Your task to perform on an android device: Show me productivity apps on the Play Store Image 0: 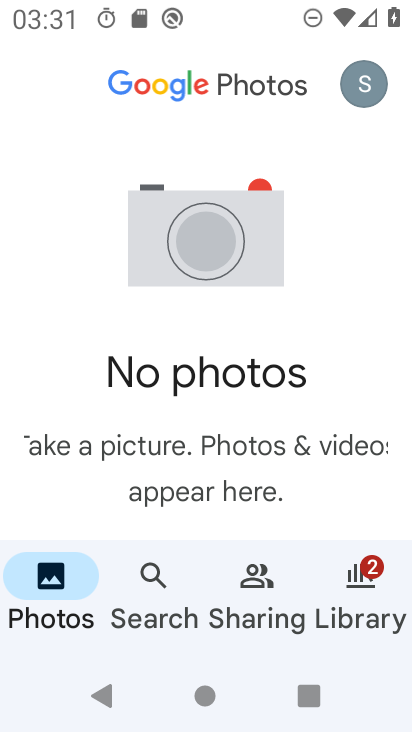
Step 0: press home button
Your task to perform on an android device: Show me productivity apps on the Play Store Image 1: 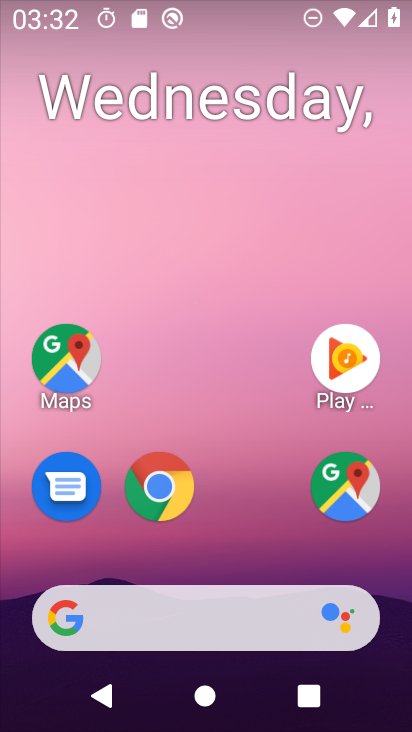
Step 1: drag from (260, 549) to (291, 175)
Your task to perform on an android device: Show me productivity apps on the Play Store Image 2: 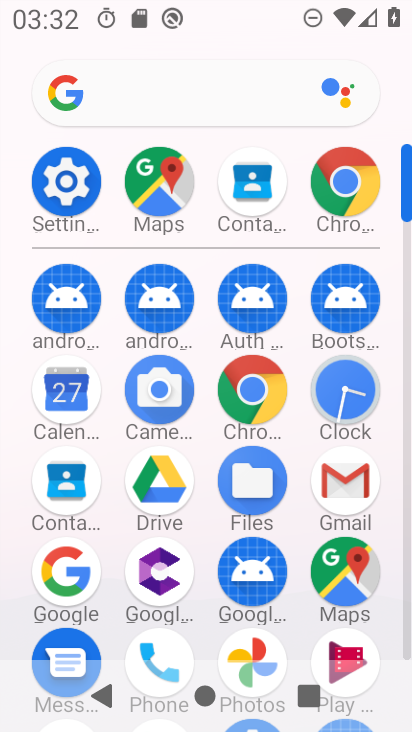
Step 2: drag from (388, 595) to (393, 300)
Your task to perform on an android device: Show me productivity apps on the Play Store Image 3: 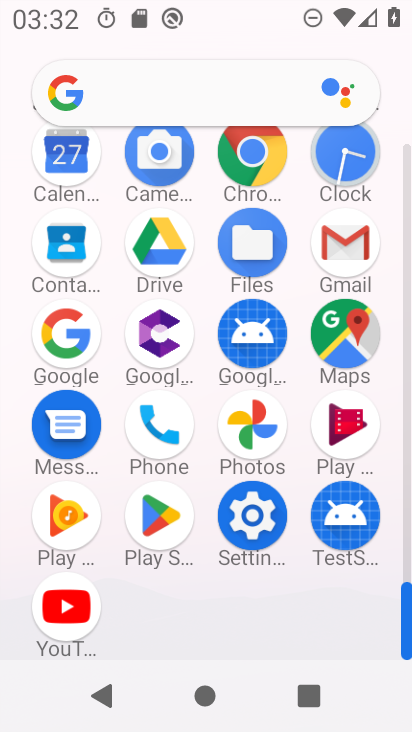
Step 3: click (163, 521)
Your task to perform on an android device: Show me productivity apps on the Play Store Image 4: 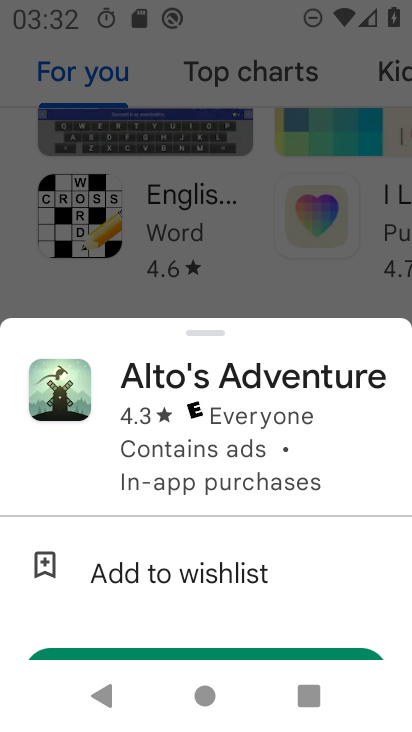
Step 4: press back button
Your task to perform on an android device: Show me productivity apps on the Play Store Image 5: 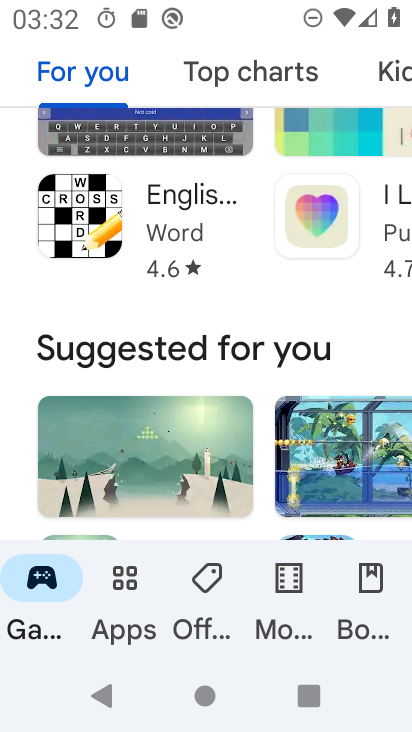
Step 5: click (122, 596)
Your task to perform on an android device: Show me productivity apps on the Play Store Image 6: 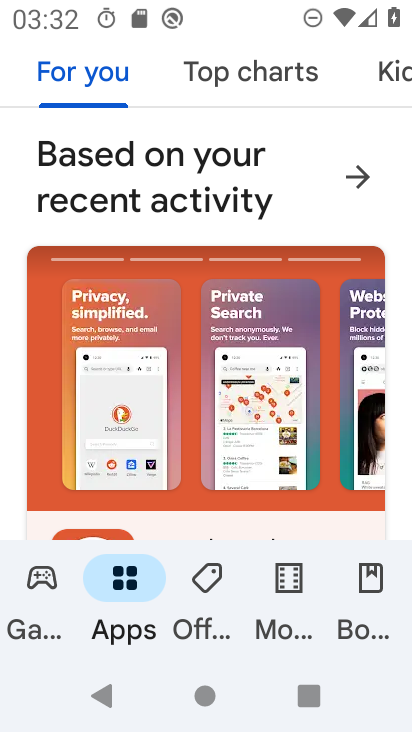
Step 6: task complete